Your task to perform on an android device: allow cookies in the chrome app Image 0: 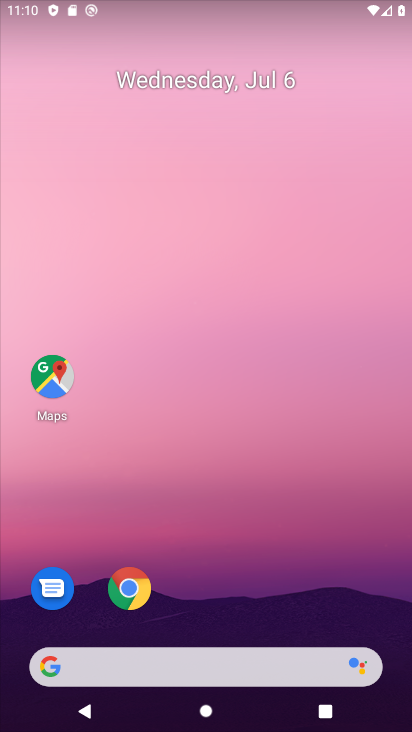
Step 0: drag from (199, 601) to (20, 85)
Your task to perform on an android device: allow cookies in the chrome app Image 1: 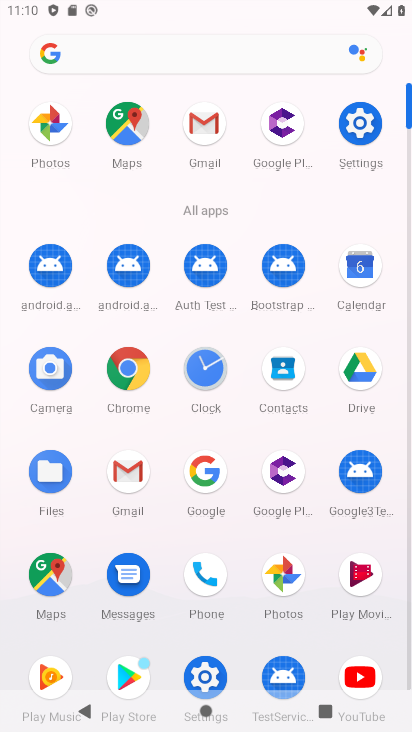
Step 1: click (126, 374)
Your task to perform on an android device: allow cookies in the chrome app Image 2: 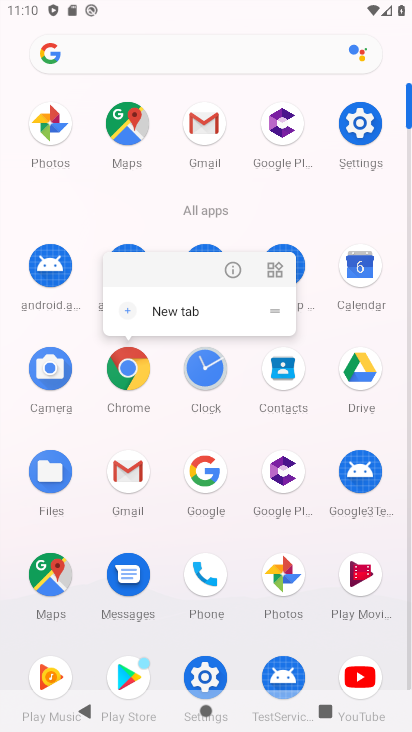
Step 2: click (230, 273)
Your task to perform on an android device: allow cookies in the chrome app Image 3: 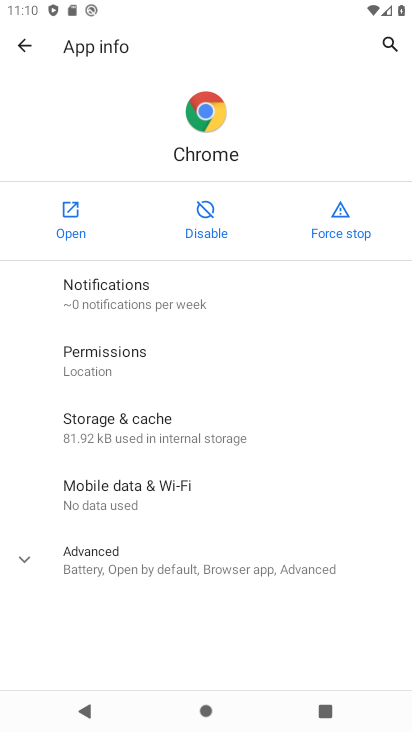
Step 3: click (70, 217)
Your task to perform on an android device: allow cookies in the chrome app Image 4: 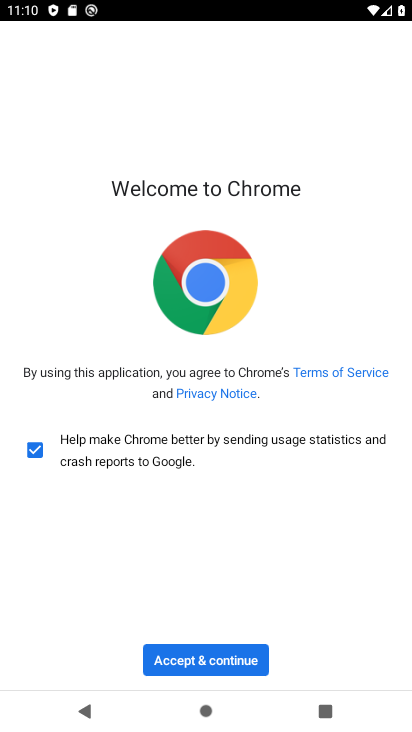
Step 4: click (192, 662)
Your task to perform on an android device: allow cookies in the chrome app Image 5: 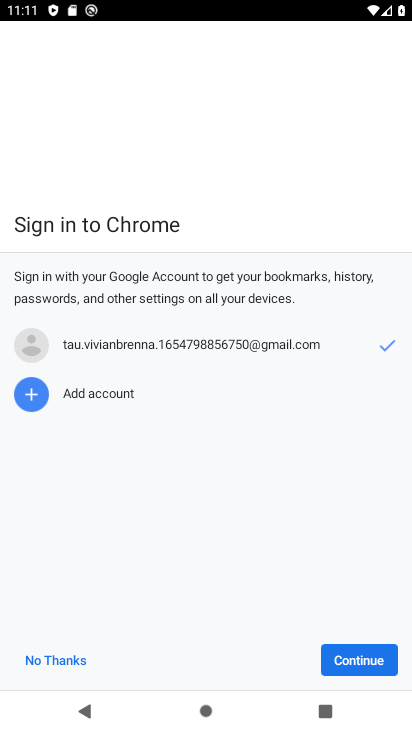
Step 5: click (36, 658)
Your task to perform on an android device: allow cookies in the chrome app Image 6: 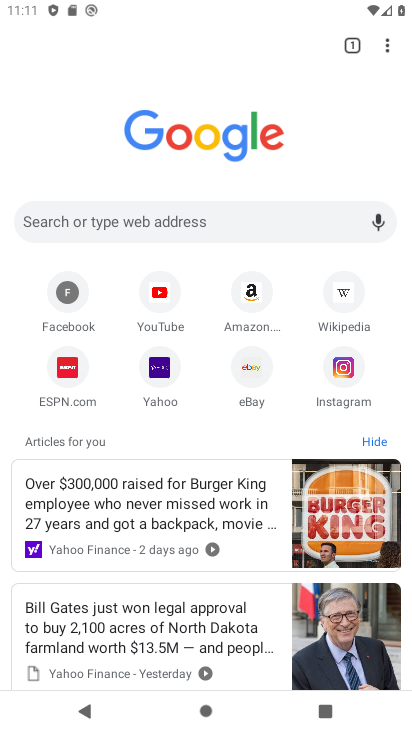
Step 6: click (382, 43)
Your task to perform on an android device: allow cookies in the chrome app Image 7: 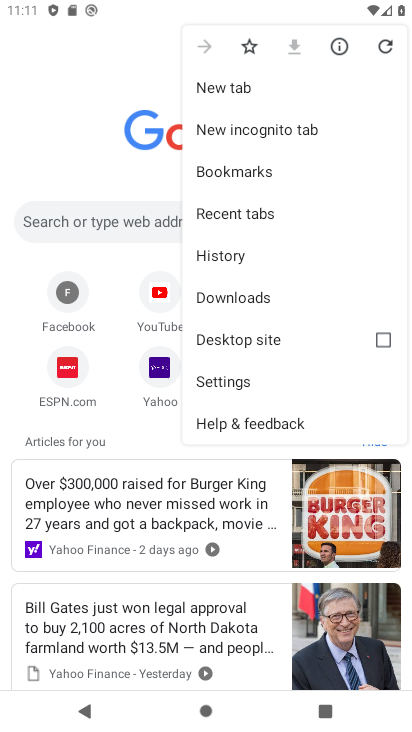
Step 7: click (228, 372)
Your task to perform on an android device: allow cookies in the chrome app Image 8: 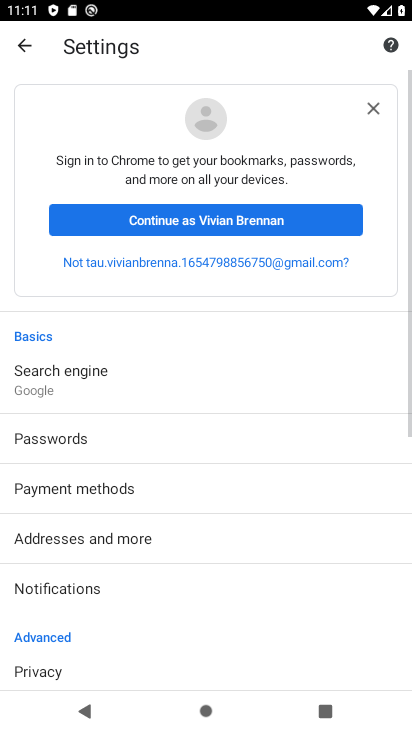
Step 8: drag from (117, 563) to (235, 221)
Your task to perform on an android device: allow cookies in the chrome app Image 9: 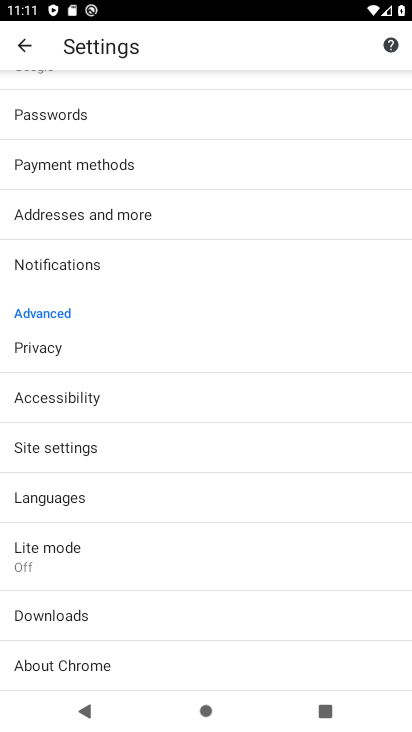
Step 9: click (90, 451)
Your task to perform on an android device: allow cookies in the chrome app Image 10: 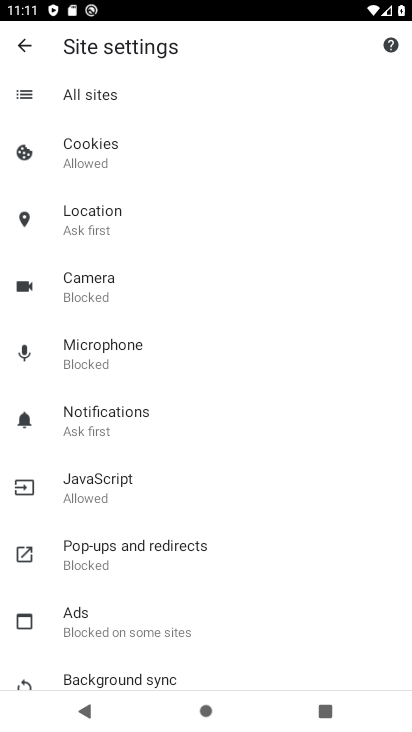
Step 10: click (202, 147)
Your task to perform on an android device: allow cookies in the chrome app Image 11: 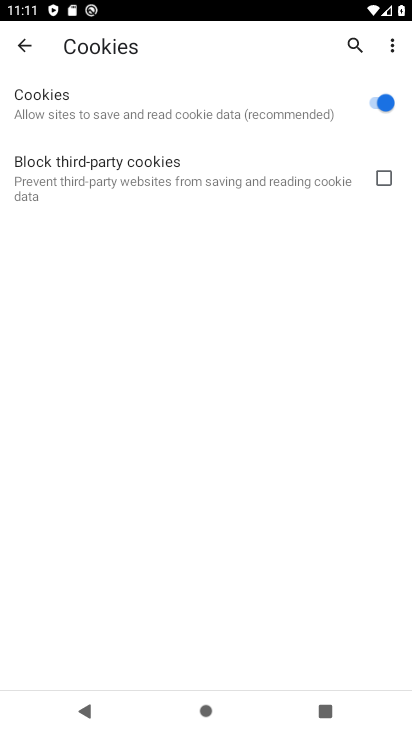
Step 11: task complete